Your task to perform on an android device: turn off data saver in the chrome app Image 0: 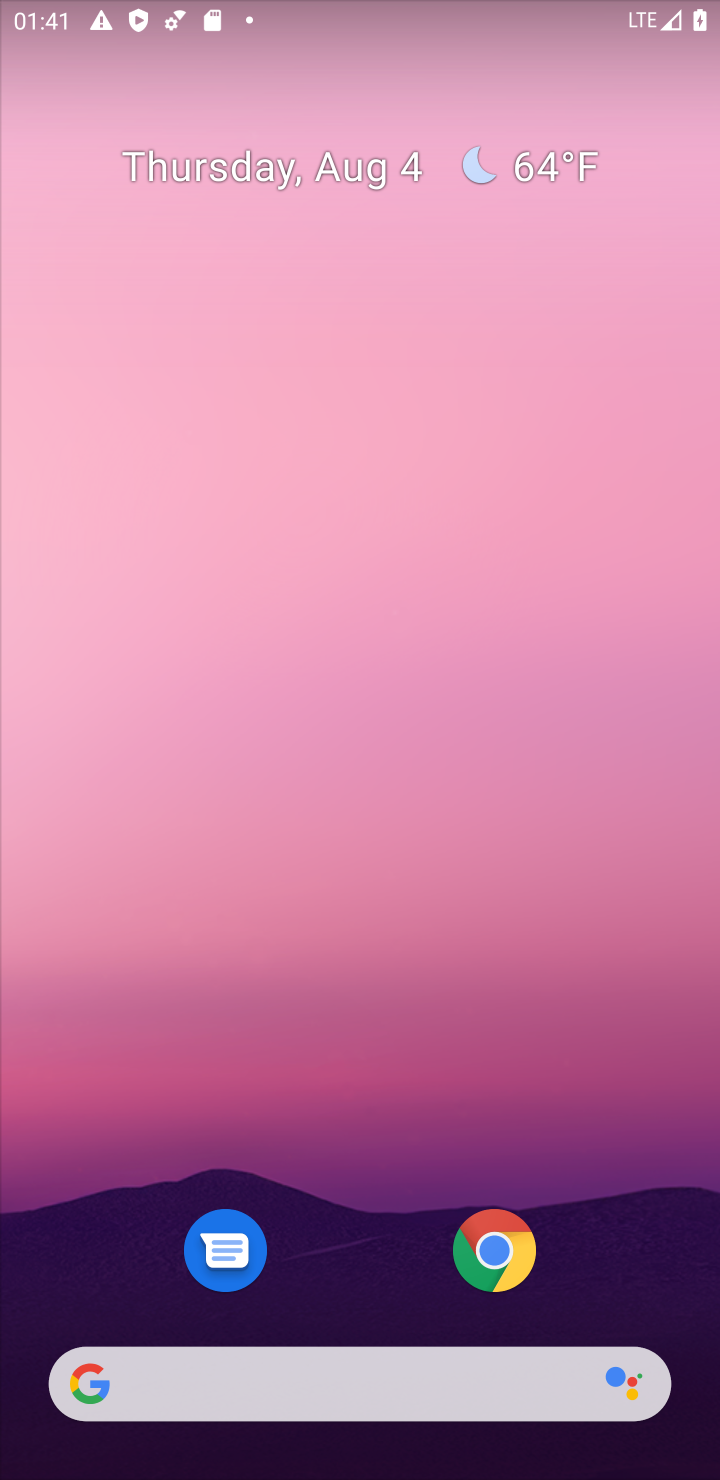
Step 0: click (499, 1254)
Your task to perform on an android device: turn off data saver in the chrome app Image 1: 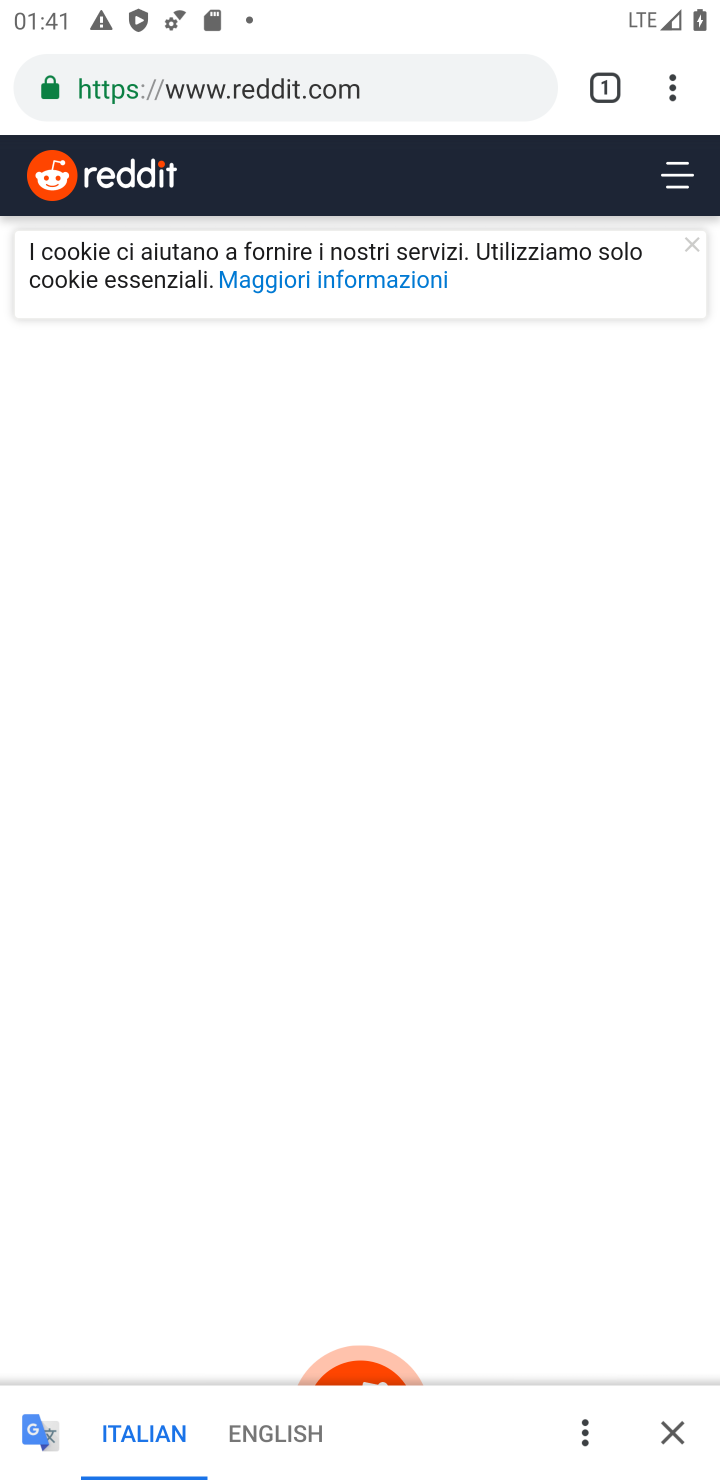
Step 1: click (690, 84)
Your task to perform on an android device: turn off data saver in the chrome app Image 2: 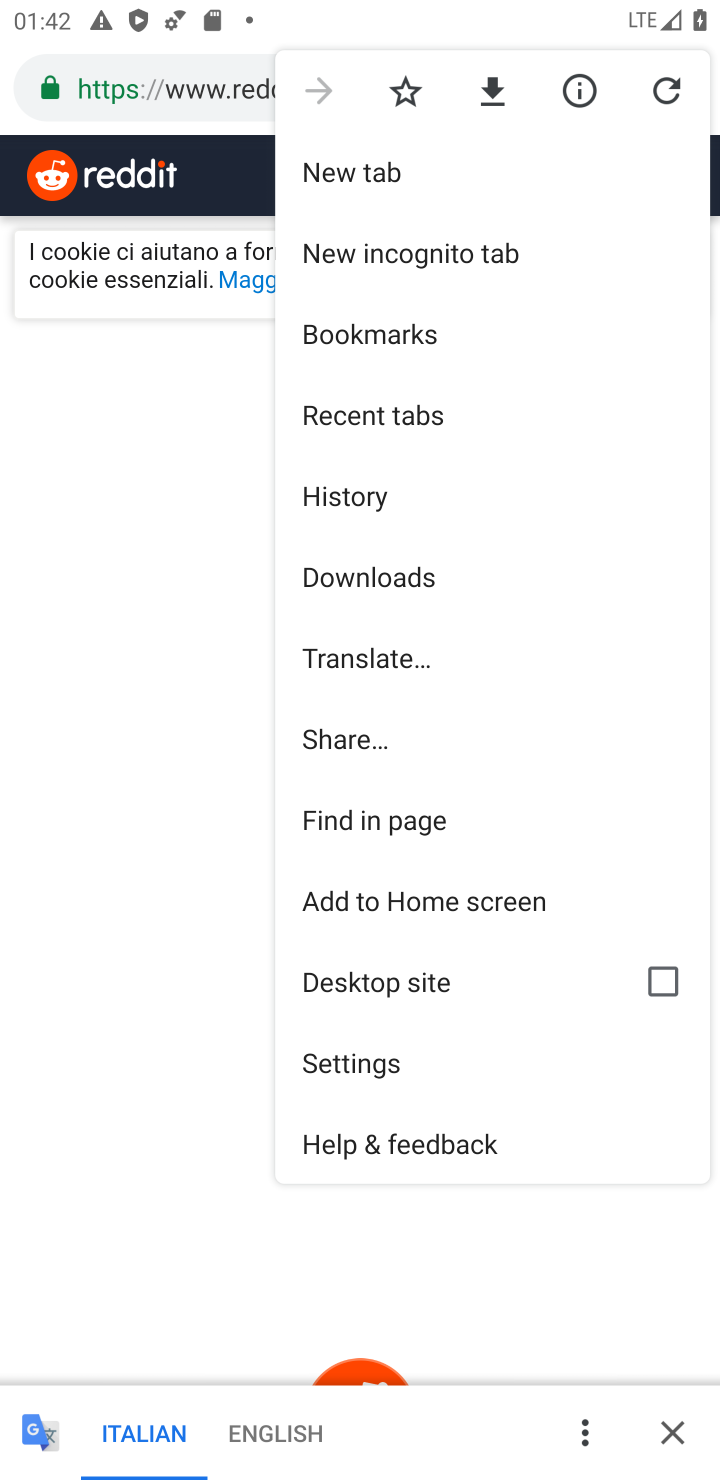
Step 2: click (372, 1061)
Your task to perform on an android device: turn off data saver in the chrome app Image 3: 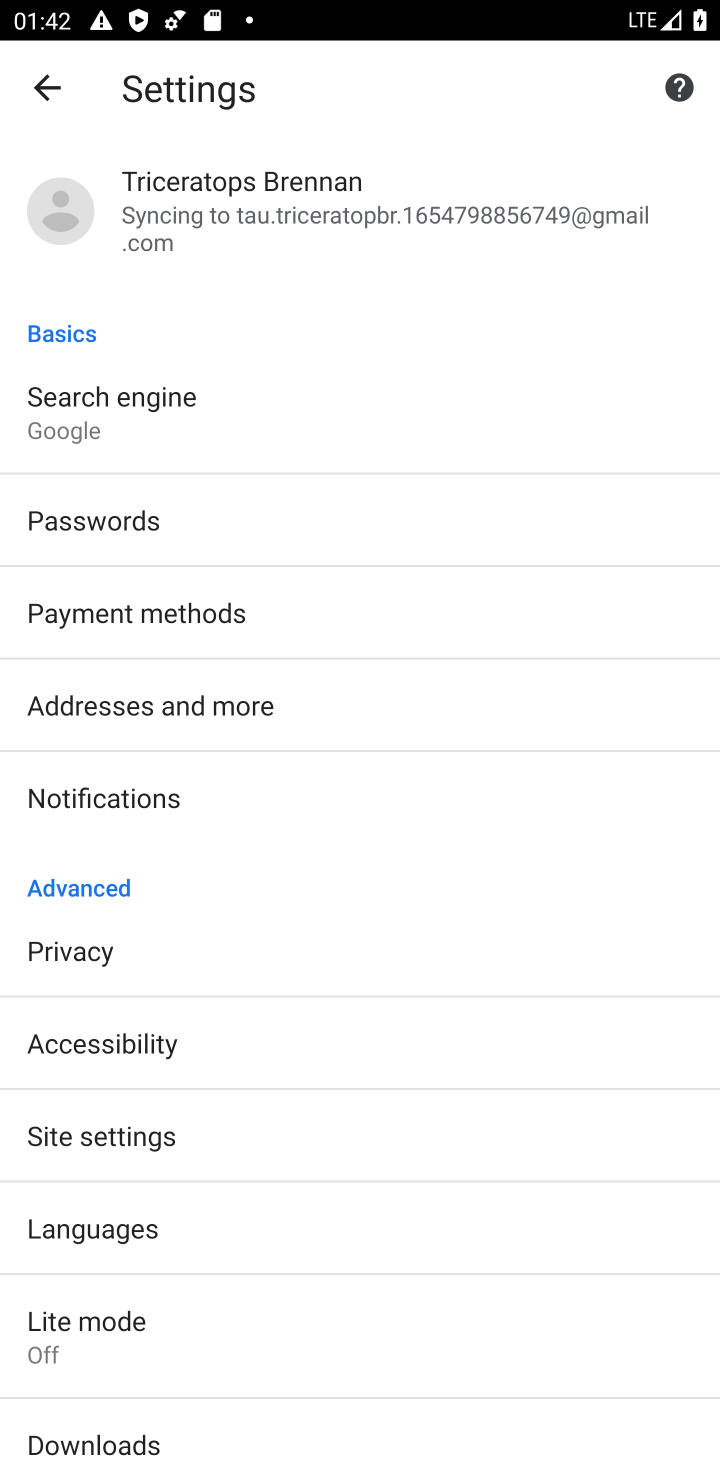
Step 3: click (150, 1332)
Your task to perform on an android device: turn off data saver in the chrome app Image 4: 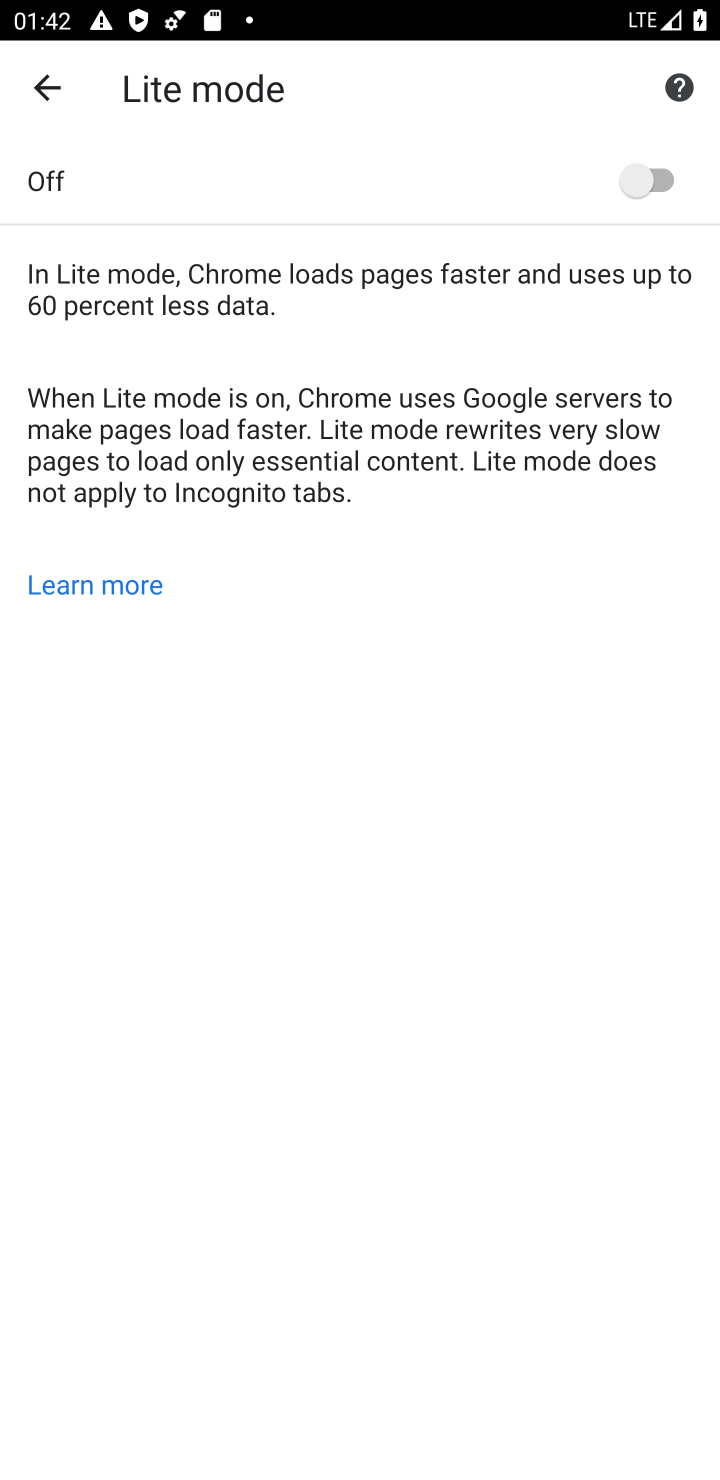
Step 4: task complete